Your task to perform on an android device: change the upload size in google photos Image 0: 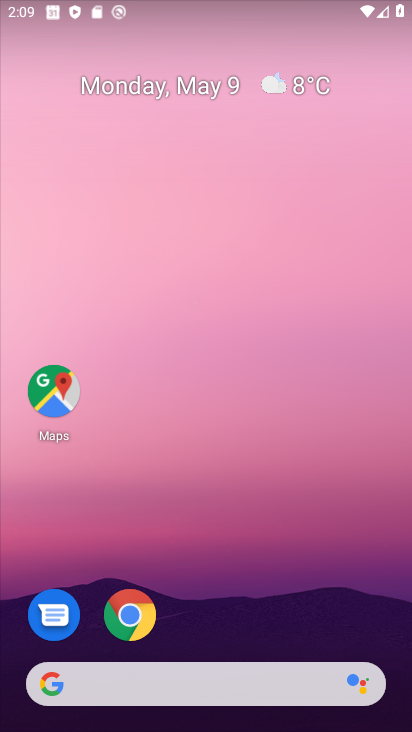
Step 0: drag from (277, 573) to (33, 45)
Your task to perform on an android device: change the upload size in google photos Image 1: 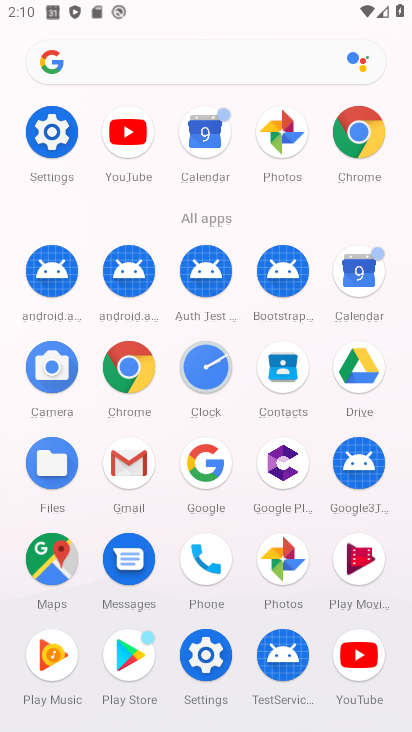
Step 1: click (294, 147)
Your task to perform on an android device: change the upload size in google photos Image 2: 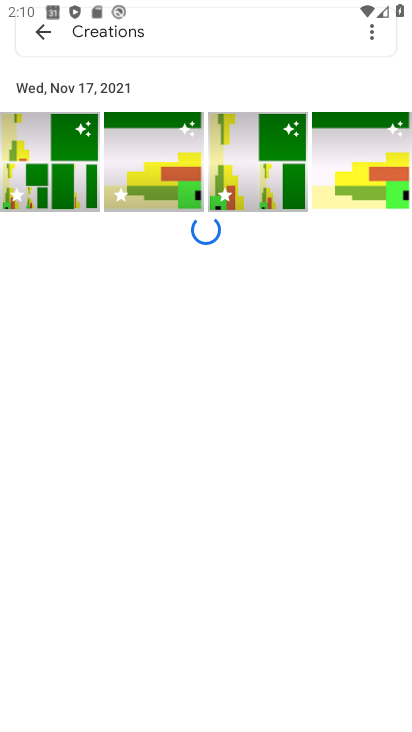
Step 2: click (45, 36)
Your task to perform on an android device: change the upload size in google photos Image 3: 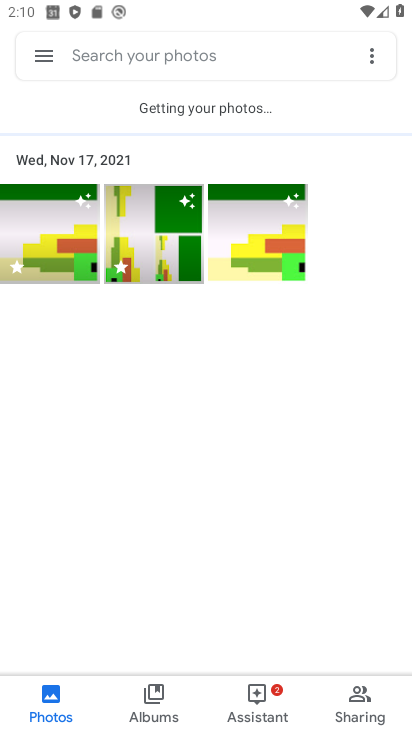
Step 3: click (39, 64)
Your task to perform on an android device: change the upload size in google photos Image 4: 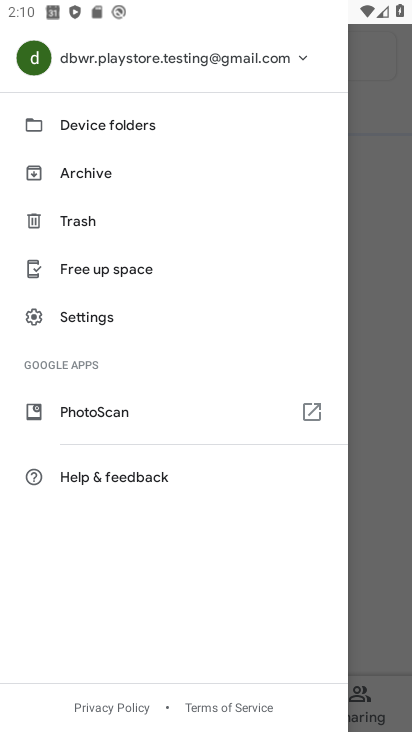
Step 4: click (92, 320)
Your task to perform on an android device: change the upload size in google photos Image 5: 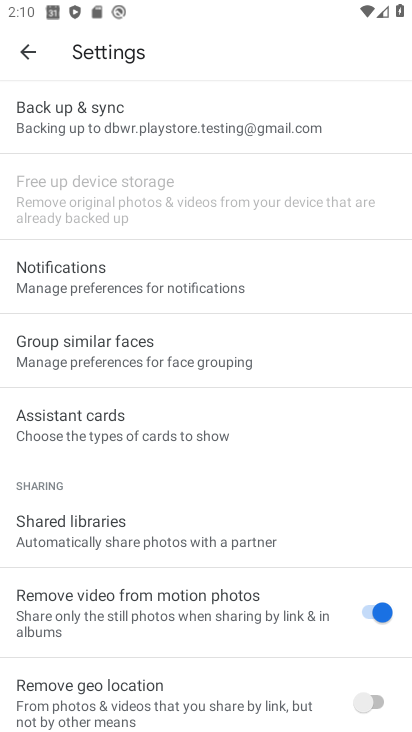
Step 5: click (144, 120)
Your task to perform on an android device: change the upload size in google photos Image 6: 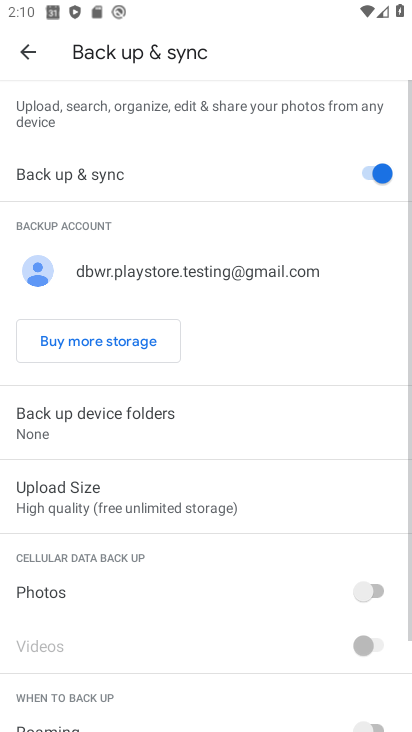
Step 6: click (174, 521)
Your task to perform on an android device: change the upload size in google photos Image 7: 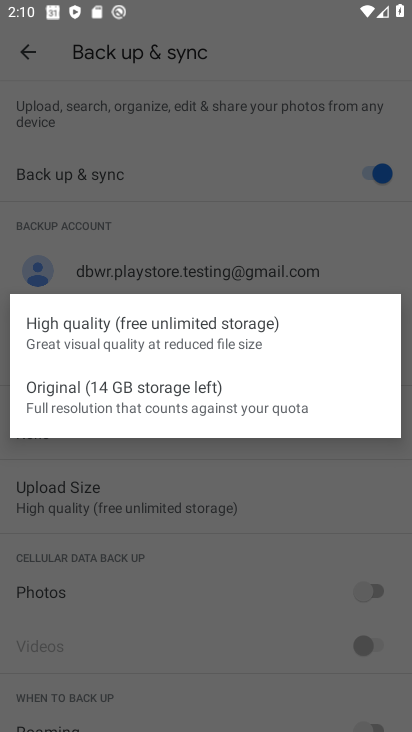
Step 7: click (201, 394)
Your task to perform on an android device: change the upload size in google photos Image 8: 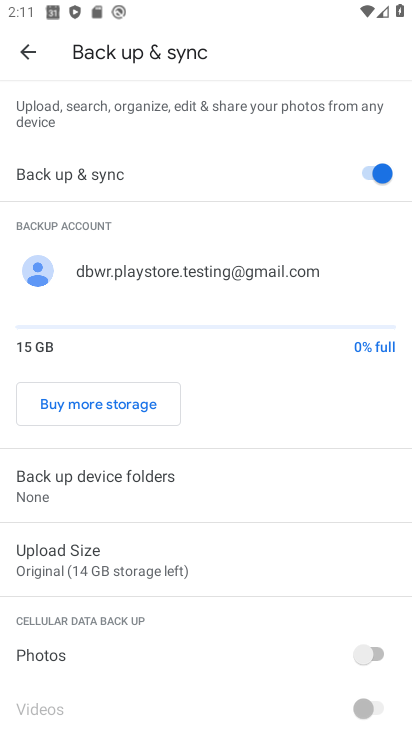
Step 8: task complete